Your task to perform on an android device: change the upload size in google photos Image 0: 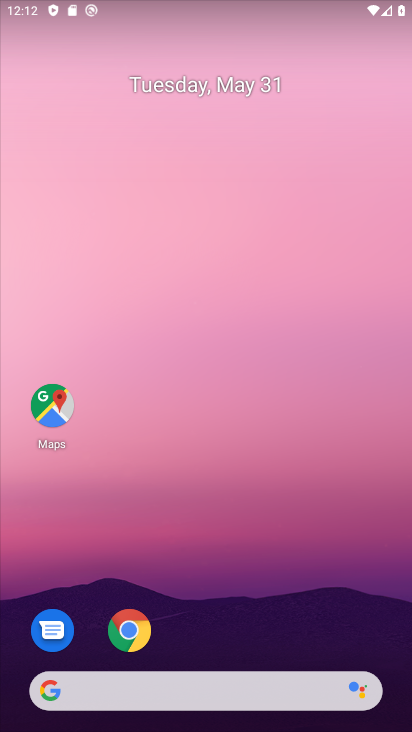
Step 0: drag from (228, 534) to (280, 222)
Your task to perform on an android device: change the upload size in google photos Image 1: 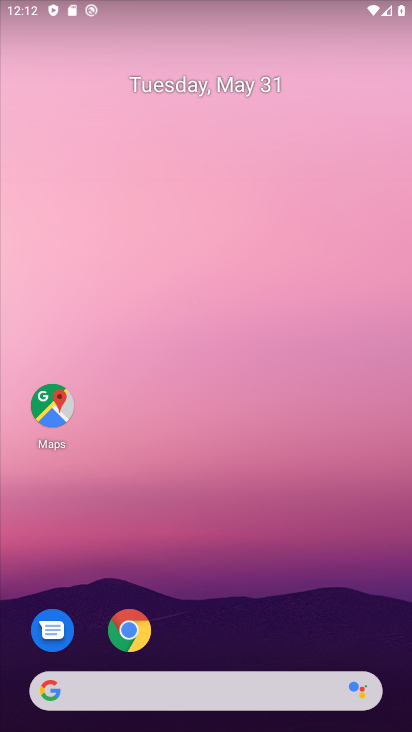
Step 1: drag from (182, 641) to (263, 211)
Your task to perform on an android device: change the upload size in google photos Image 2: 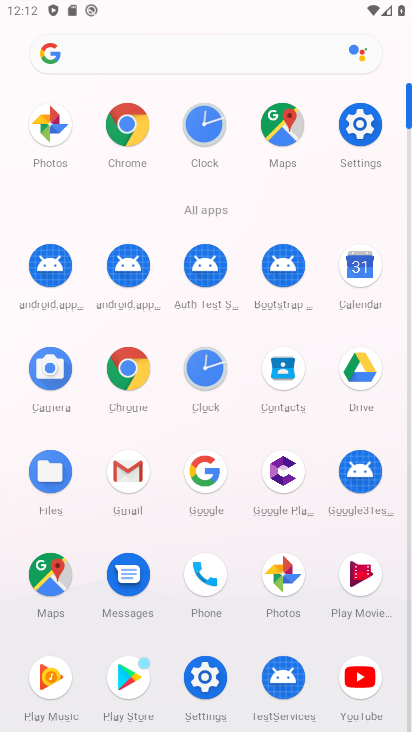
Step 2: click (282, 576)
Your task to perform on an android device: change the upload size in google photos Image 3: 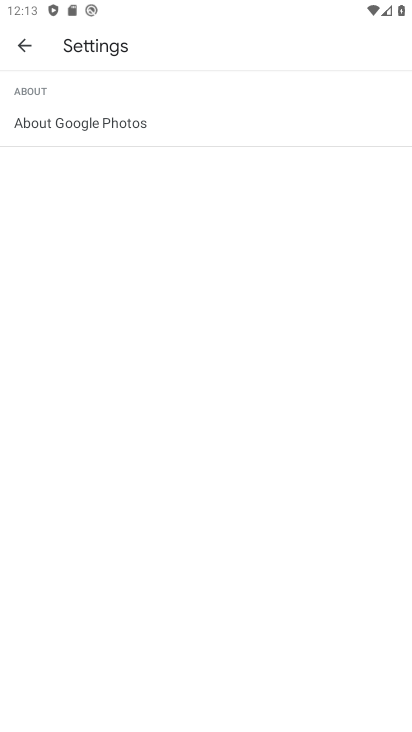
Step 3: press home button
Your task to perform on an android device: change the upload size in google photos Image 4: 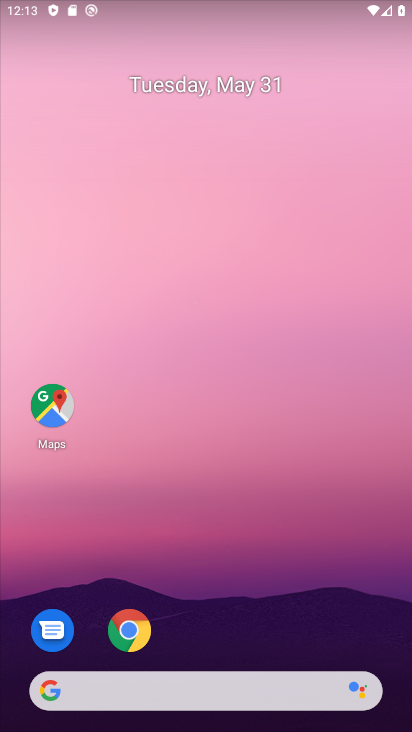
Step 4: drag from (197, 617) to (261, 175)
Your task to perform on an android device: change the upload size in google photos Image 5: 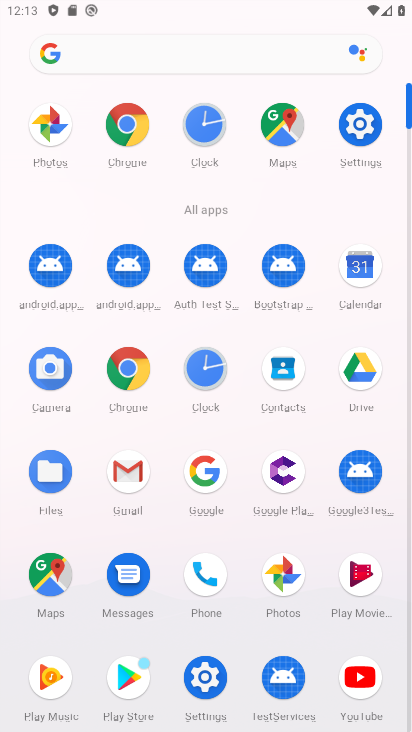
Step 5: click (284, 580)
Your task to perform on an android device: change the upload size in google photos Image 6: 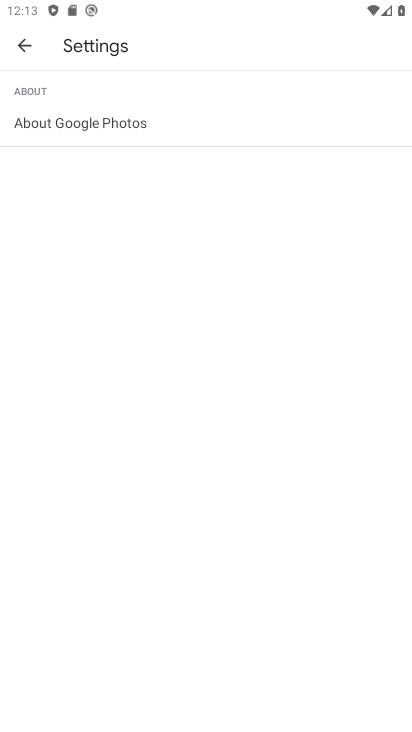
Step 6: click (97, 120)
Your task to perform on an android device: change the upload size in google photos Image 7: 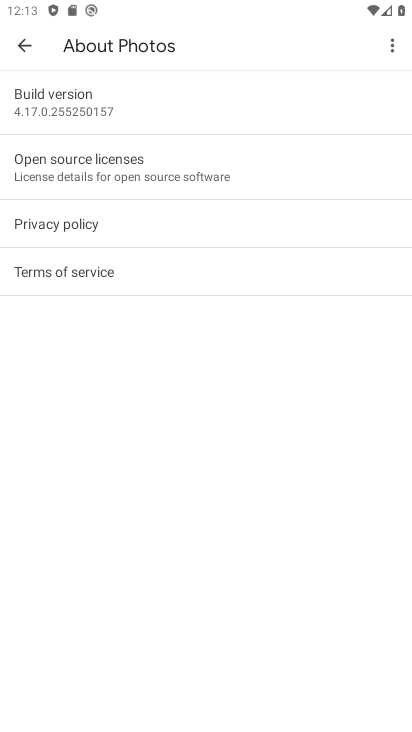
Step 7: click (24, 46)
Your task to perform on an android device: change the upload size in google photos Image 8: 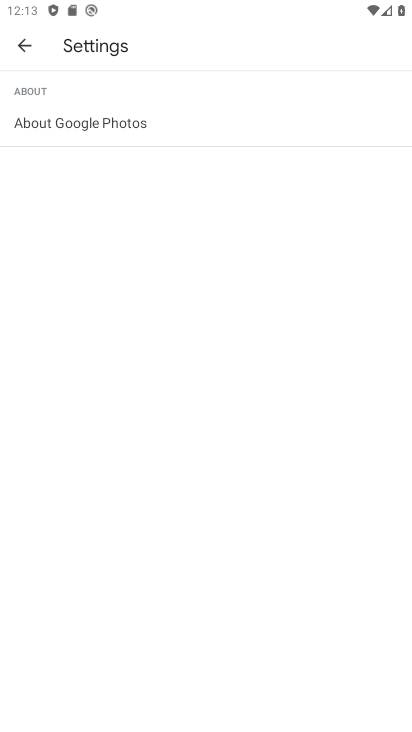
Step 8: click (24, 45)
Your task to perform on an android device: change the upload size in google photos Image 9: 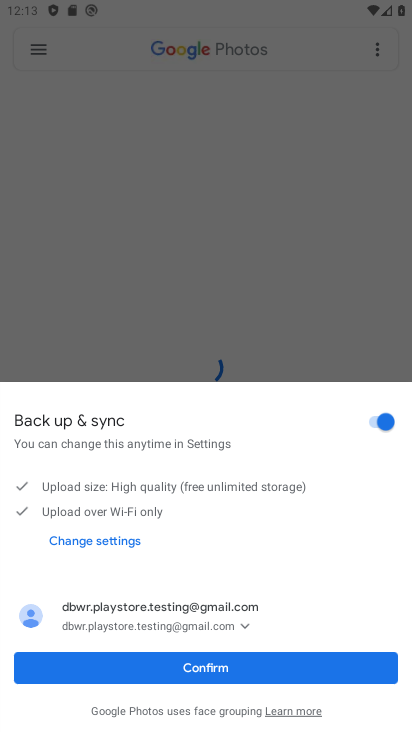
Step 9: click (228, 660)
Your task to perform on an android device: change the upload size in google photos Image 10: 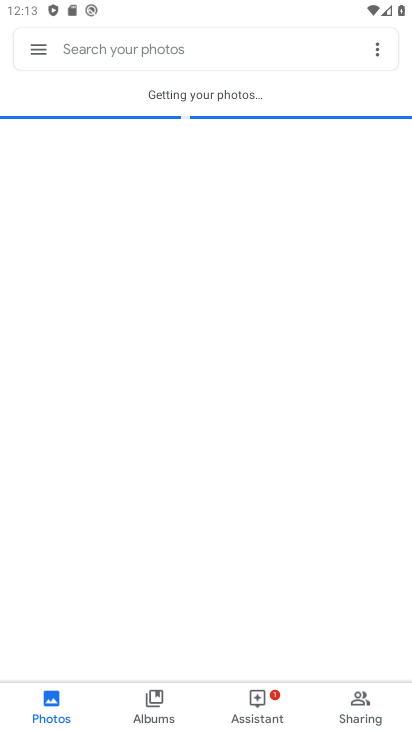
Step 10: click (39, 47)
Your task to perform on an android device: change the upload size in google photos Image 11: 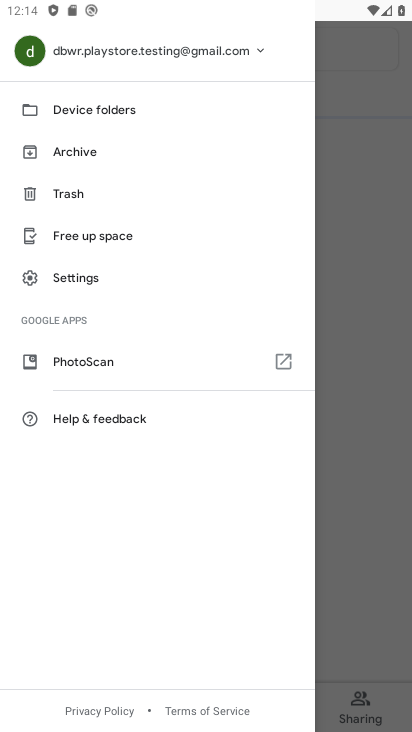
Step 11: click (95, 277)
Your task to perform on an android device: change the upload size in google photos Image 12: 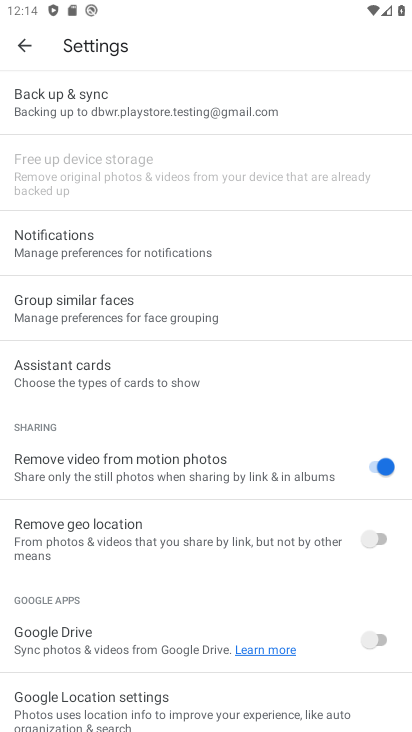
Step 12: click (101, 115)
Your task to perform on an android device: change the upload size in google photos Image 13: 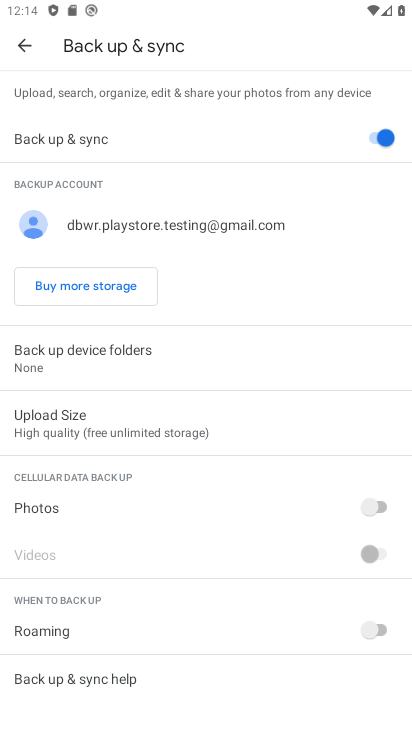
Step 13: click (119, 419)
Your task to perform on an android device: change the upload size in google photos Image 14: 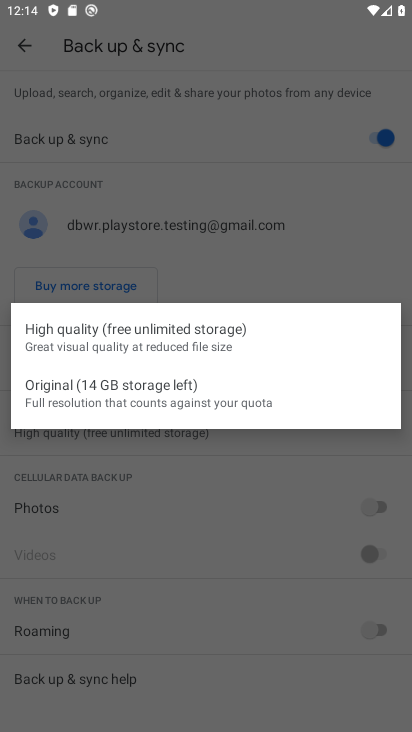
Step 14: click (132, 341)
Your task to perform on an android device: change the upload size in google photos Image 15: 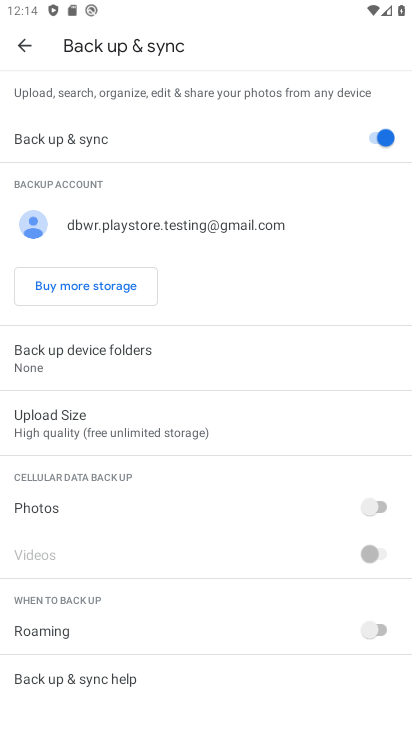
Step 15: task complete